Your task to perform on an android device: refresh tabs in the chrome app Image 0: 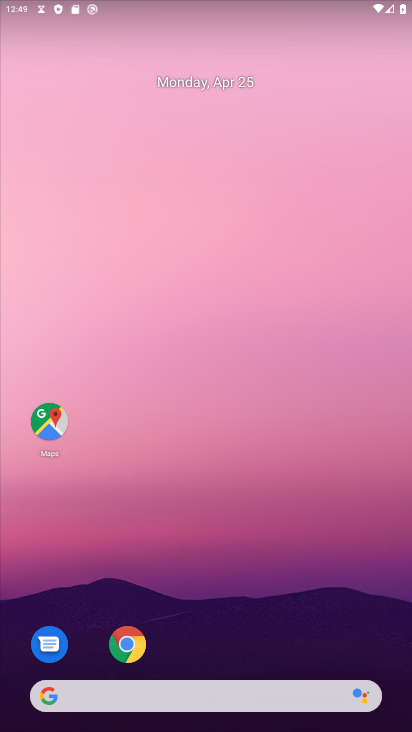
Step 0: click (129, 653)
Your task to perform on an android device: refresh tabs in the chrome app Image 1: 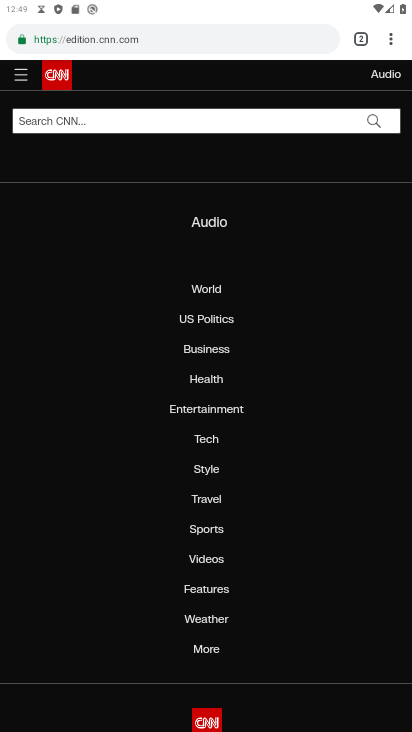
Step 1: click (390, 37)
Your task to perform on an android device: refresh tabs in the chrome app Image 2: 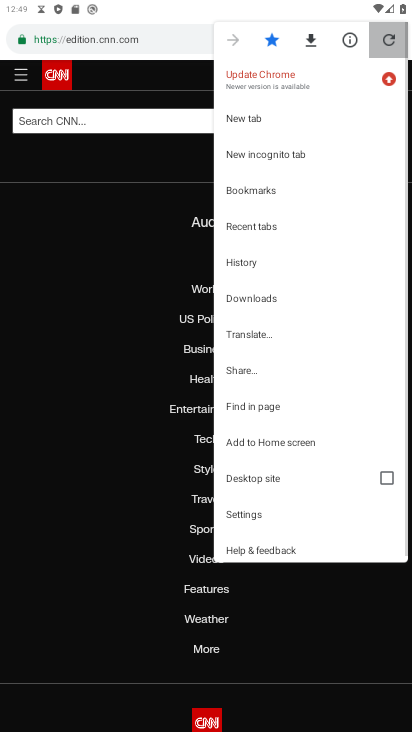
Step 2: click (390, 37)
Your task to perform on an android device: refresh tabs in the chrome app Image 3: 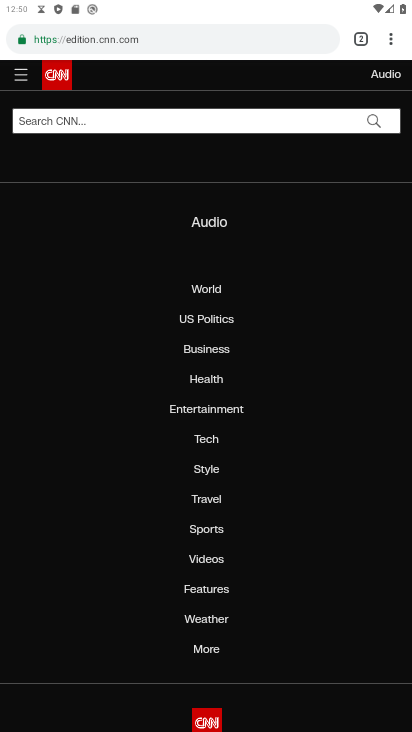
Step 3: click (388, 35)
Your task to perform on an android device: refresh tabs in the chrome app Image 4: 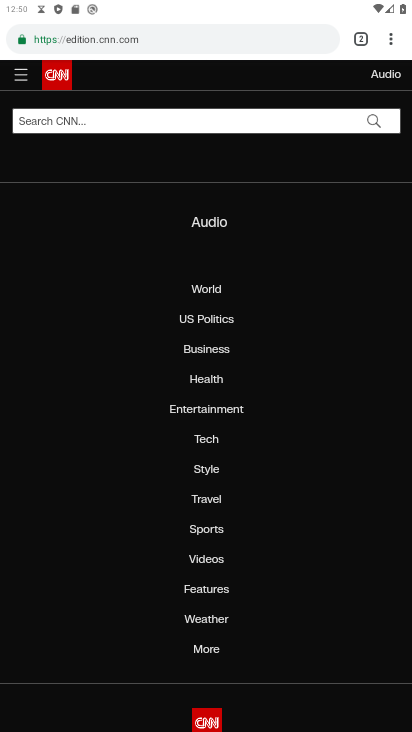
Step 4: task complete